Your task to perform on an android device: turn on wifi Image 0: 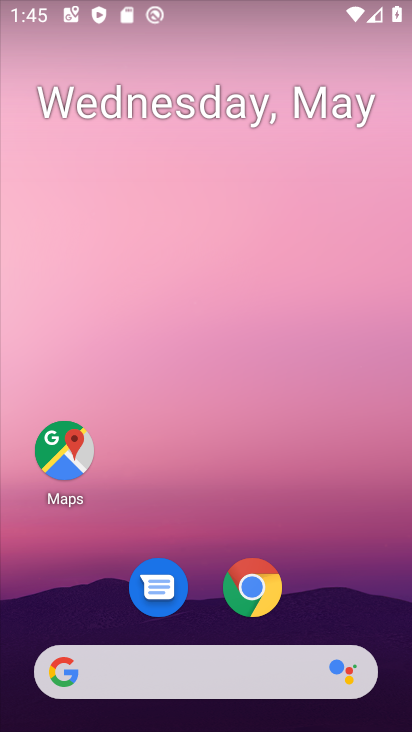
Step 0: drag from (226, 12) to (265, 592)
Your task to perform on an android device: turn on wifi Image 1: 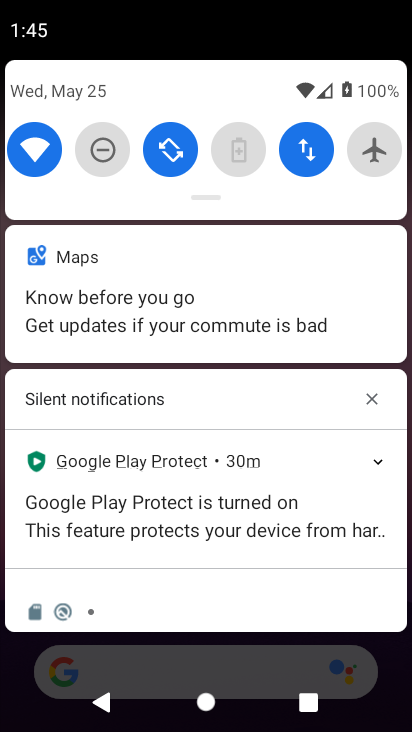
Step 1: task complete